Your task to perform on an android device: turn on the 12-hour format for clock Image 0: 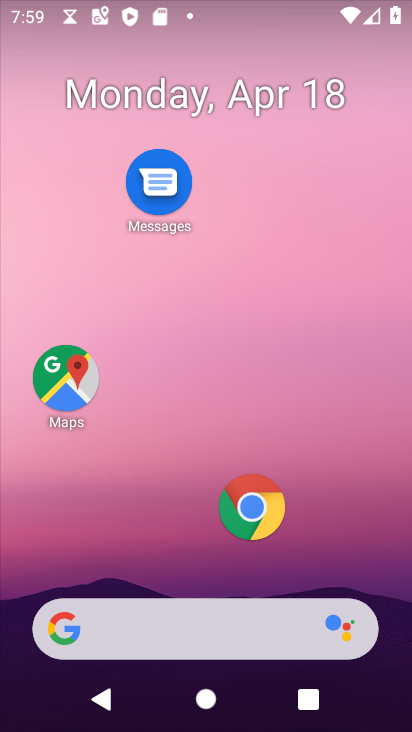
Step 0: drag from (219, 595) to (216, 256)
Your task to perform on an android device: turn on the 12-hour format for clock Image 1: 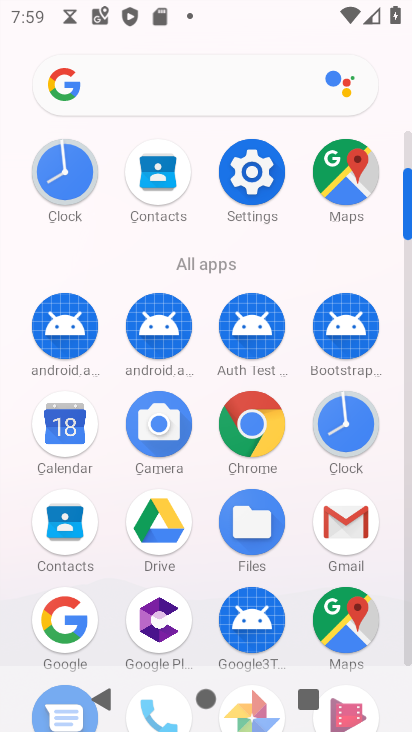
Step 1: click (345, 428)
Your task to perform on an android device: turn on the 12-hour format for clock Image 2: 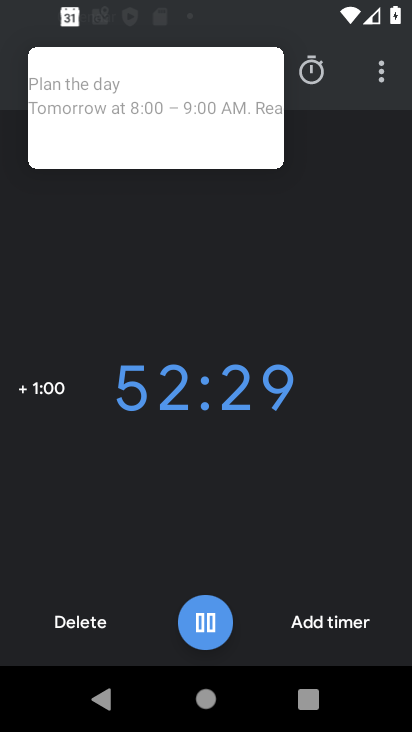
Step 2: click (39, 160)
Your task to perform on an android device: turn on the 12-hour format for clock Image 3: 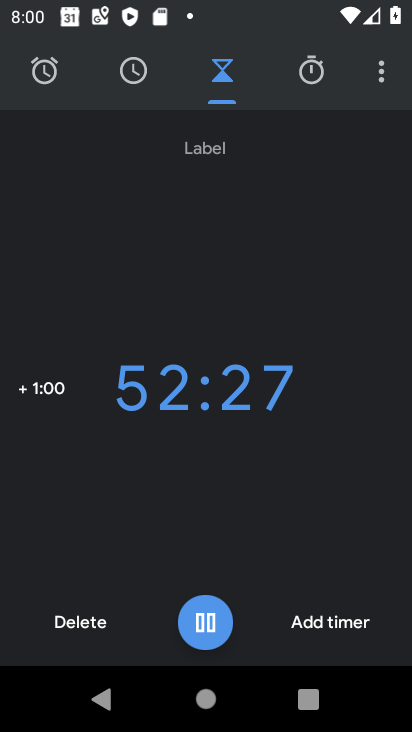
Step 3: click (383, 74)
Your task to perform on an android device: turn on the 12-hour format for clock Image 4: 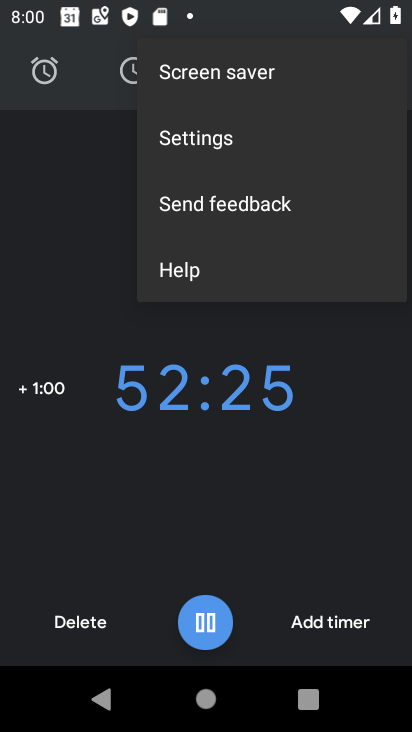
Step 4: click (219, 132)
Your task to perform on an android device: turn on the 12-hour format for clock Image 5: 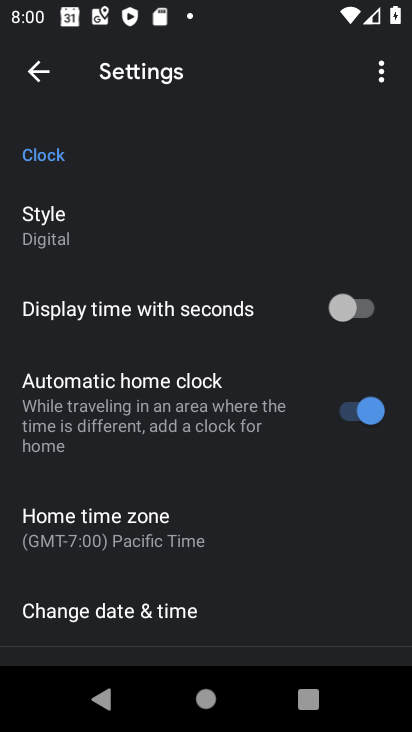
Step 5: click (147, 611)
Your task to perform on an android device: turn on the 12-hour format for clock Image 6: 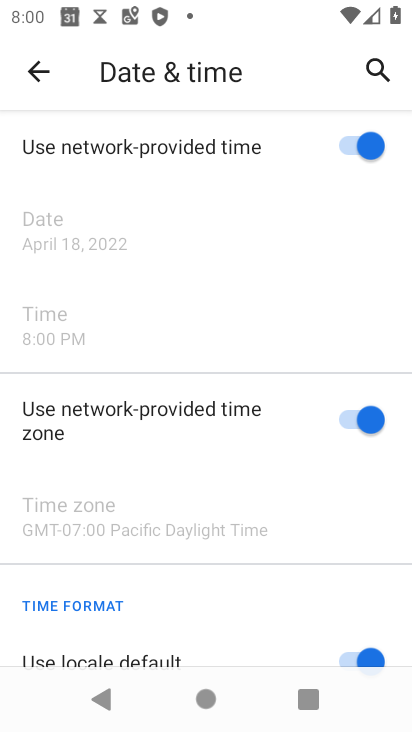
Step 6: task complete